Your task to perform on an android device: Go to accessibility settings Image 0: 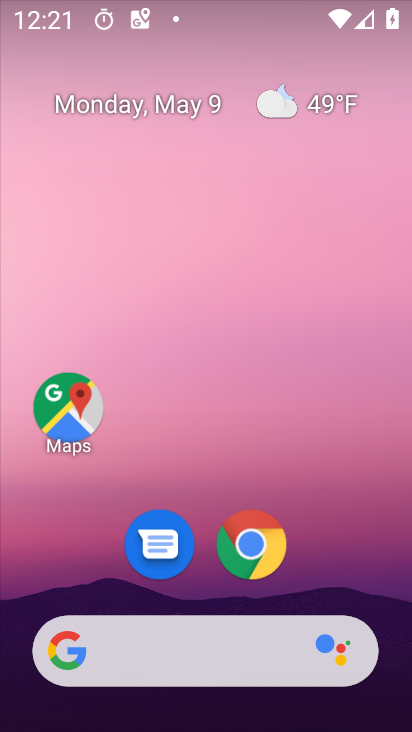
Step 0: drag from (292, 615) to (297, 46)
Your task to perform on an android device: Go to accessibility settings Image 1: 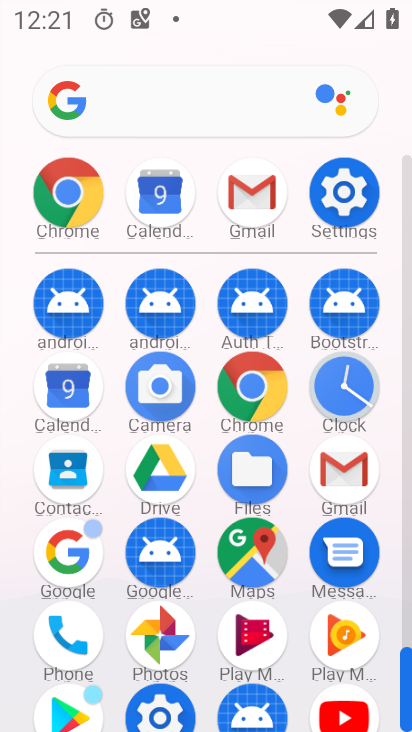
Step 1: click (360, 190)
Your task to perform on an android device: Go to accessibility settings Image 2: 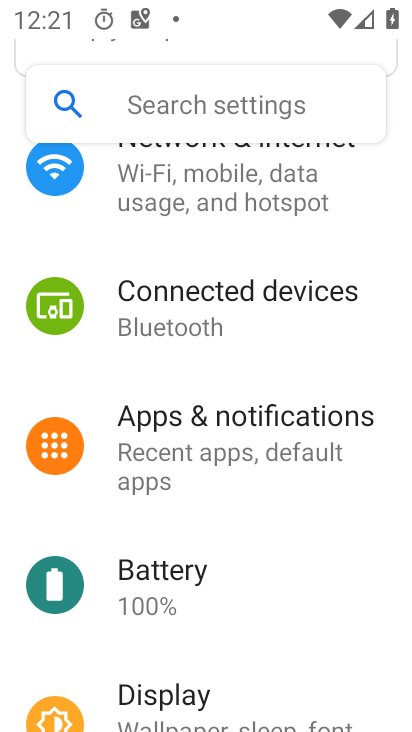
Step 2: drag from (163, 682) to (204, 124)
Your task to perform on an android device: Go to accessibility settings Image 3: 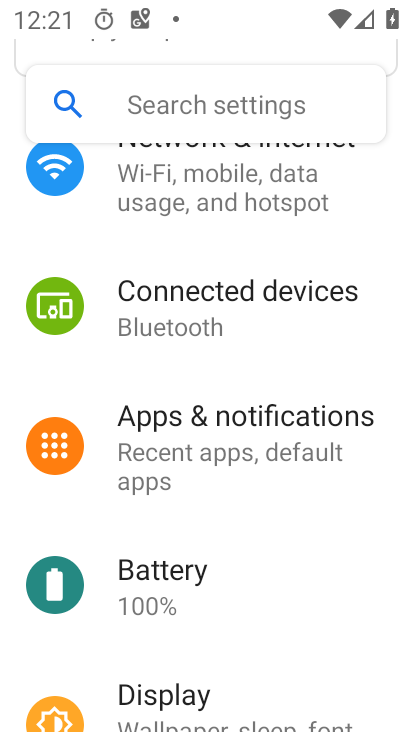
Step 3: drag from (247, 644) to (284, 142)
Your task to perform on an android device: Go to accessibility settings Image 4: 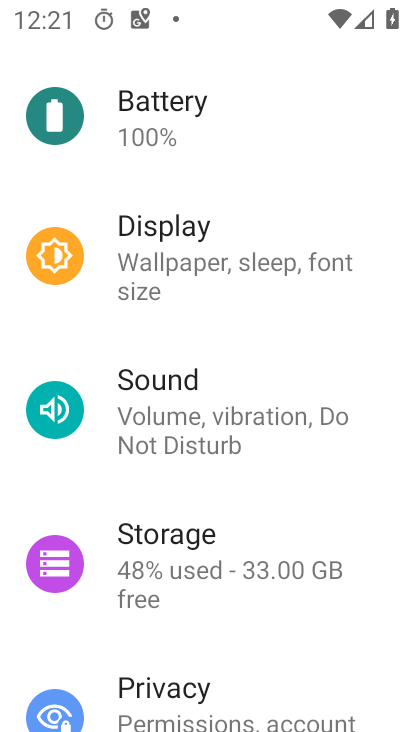
Step 4: drag from (246, 675) to (276, 112)
Your task to perform on an android device: Go to accessibility settings Image 5: 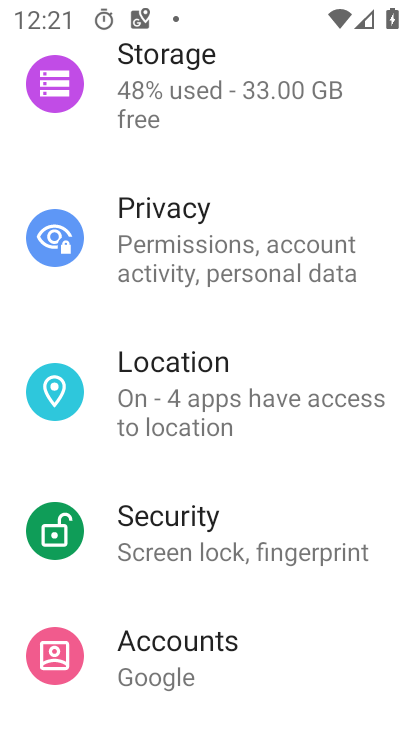
Step 5: drag from (180, 666) to (221, 110)
Your task to perform on an android device: Go to accessibility settings Image 6: 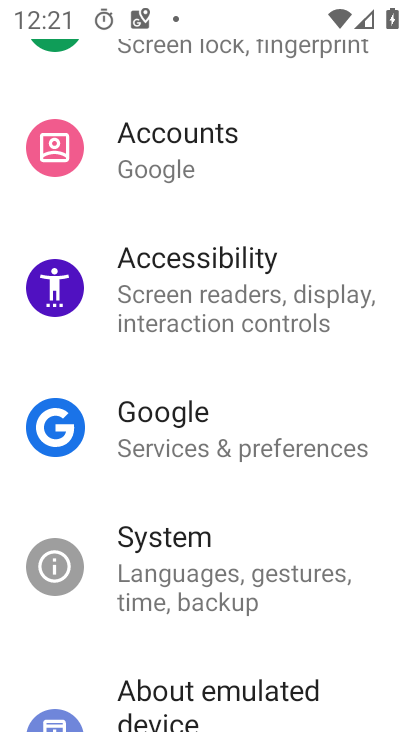
Step 6: click (250, 302)
Your task to perform on an android device: Go to accessibility settings Image 7: 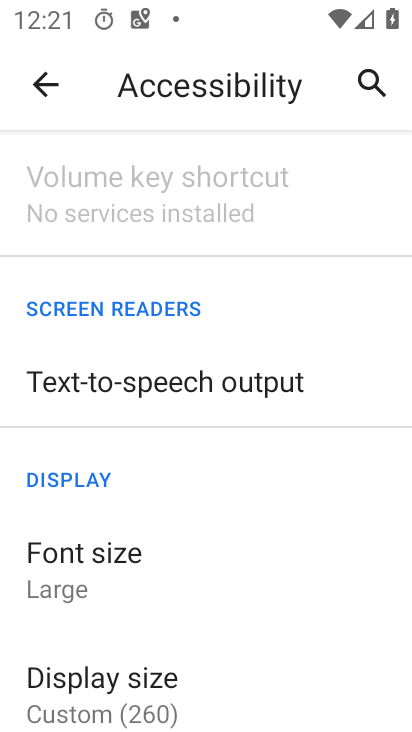
Step 7: task complete